Your task to perform on an android device: refresh tabs in the chrome app Image 0: 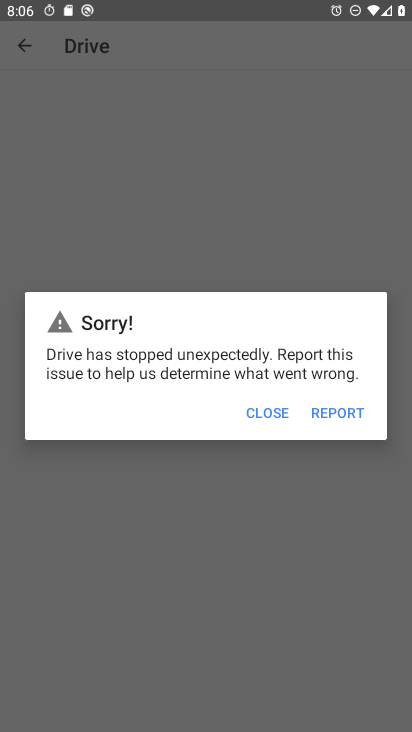
Step 0: press home button
Your task to perform on an android device: refresh tabs in the chrome app Image 1: 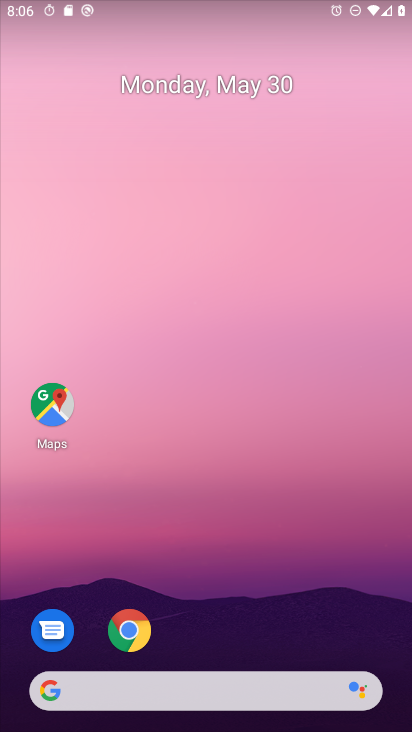
Step 1: drag from (277, 482) to (273, 255)
Your task to perform on an android device: refresh tabs in the chrome app Image 2: 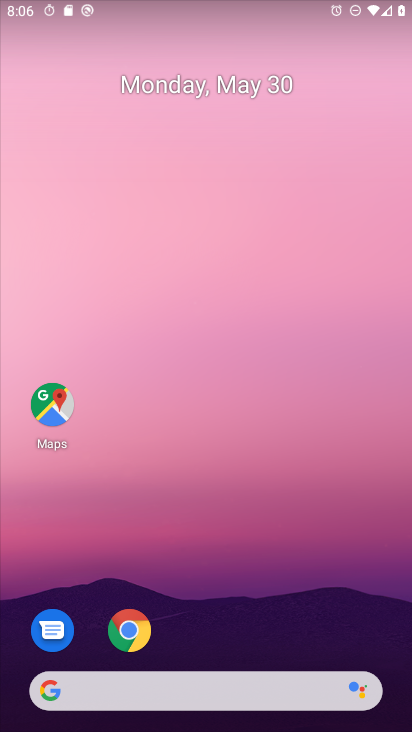
Step 2: drag from (299, 624) to (315, 132)
Your task to perform on an android device: refresh tabs in the chrome app Image 3: 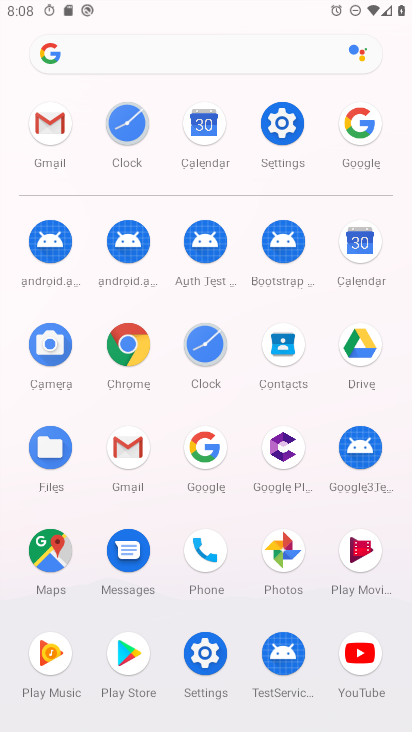
Step 3: click (140, 352)
Your task to perform on an android device: refresh tabs in the chrome app Image 4: 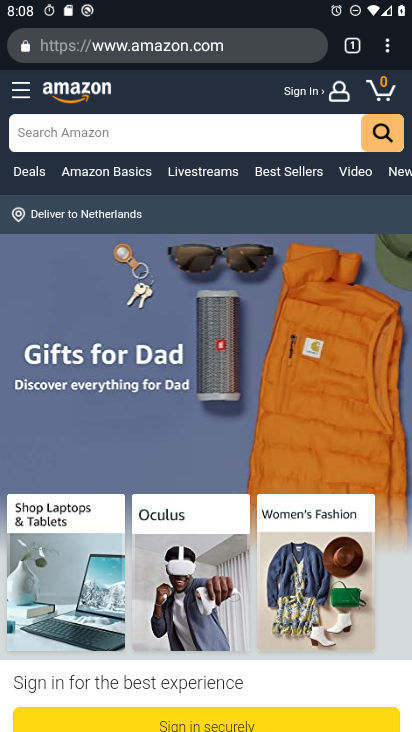
Step 4: press back button
Your task to perform on an android device: refresh tabs in the chrome app Image 5: 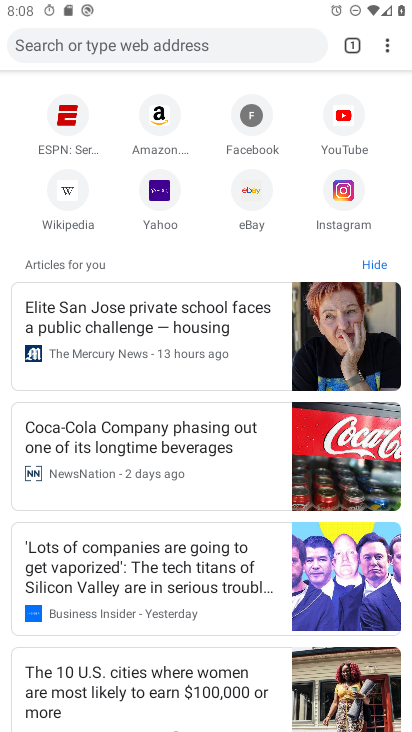
Step 5: click (384, 43)
Your task to perform on an android device: refresh tabs in the chrome app Image 6: 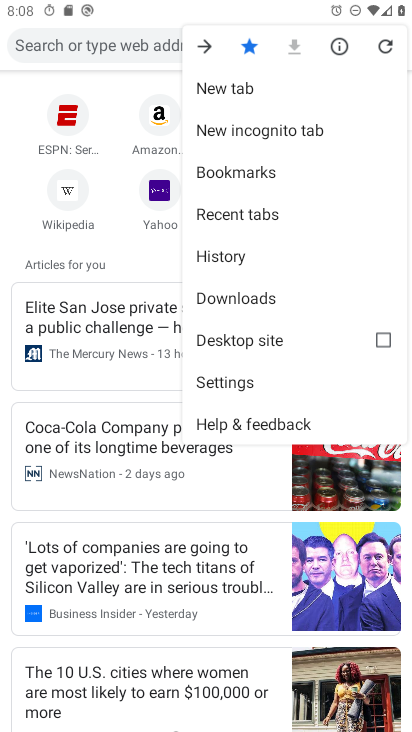
Step 6: click (386, 46)
Your task to perform on an android device: refresh tabs in the chrome app Image 7: 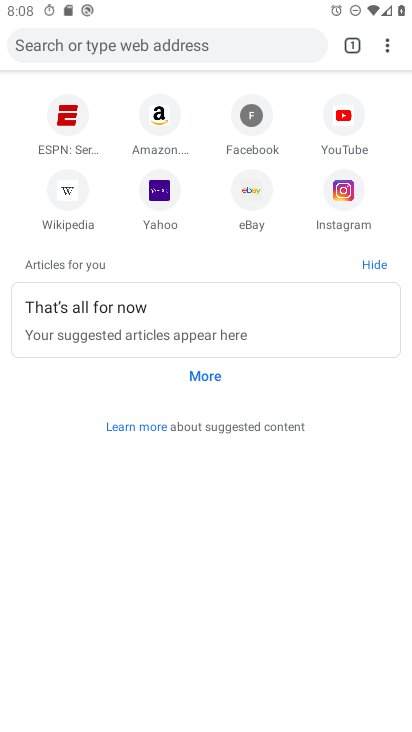
Step 7: task complete